Your task to perform on an android device: Search for sushi restaurants on Maps Image 0: 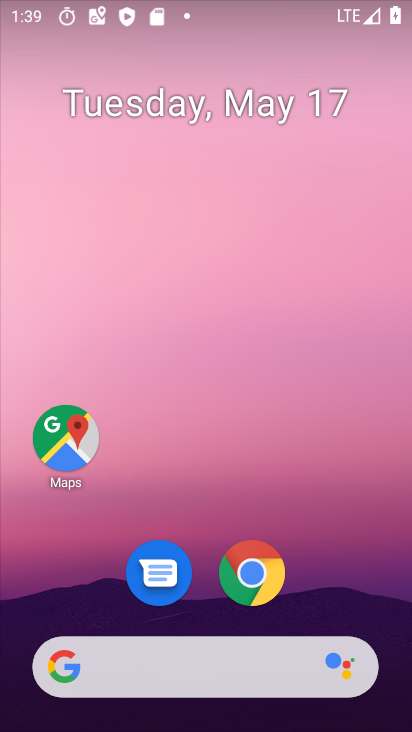
Step 0: click (45, 438)
Your task to perform on an android device: Search for sushi restaurants on Maps Image 1: 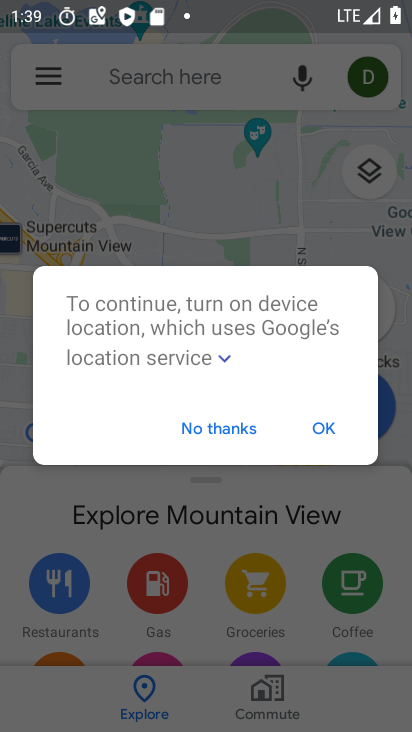
Step 1: click (225, 425)
Your task to perform on an android device: Search for sushi restaurants on Maps Image 2: 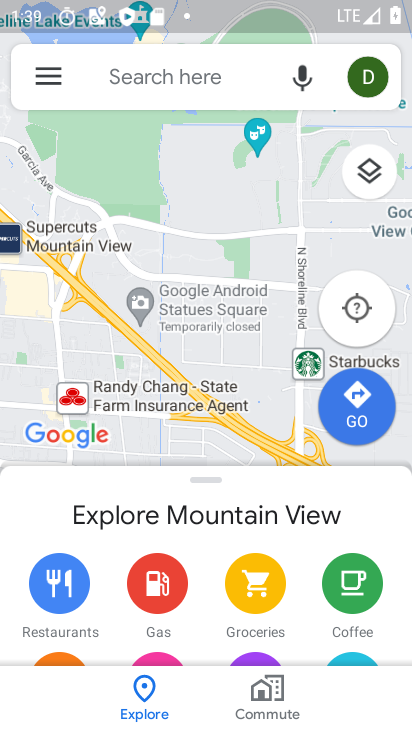
Step 2: click (210, 73)
Your task to perform on an android device: Search for sushi restaurants on Maps Image 3: 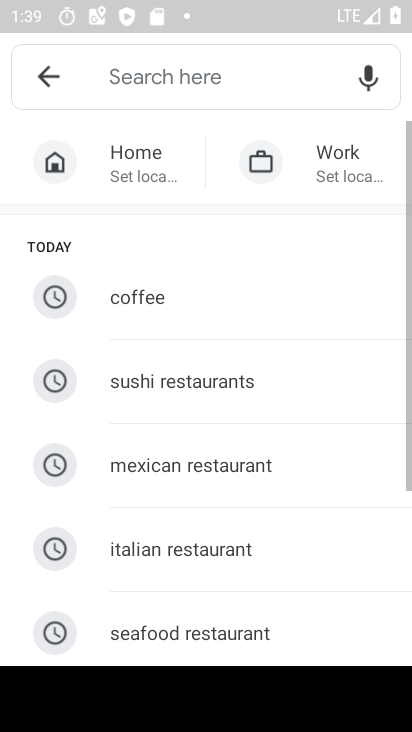
Step 3: click (203, 381)
Your task to perform on an android device: Search for sushi restaurants on Maps Image 4: 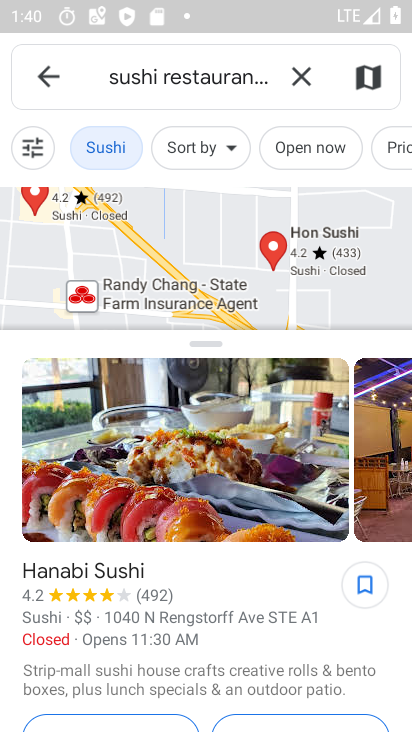
Step 4: task complete